Your task to perform on an android device: Open ESPN.com Image 0: 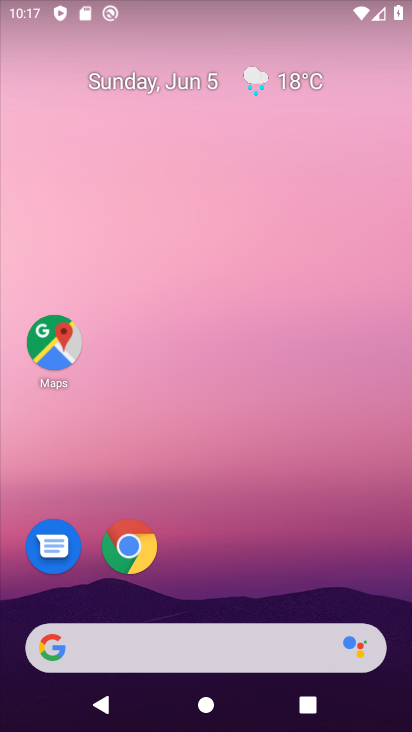
Step 0: click (138, 565)
Your task to perform on an android device: Open ESPN.com Image 1: 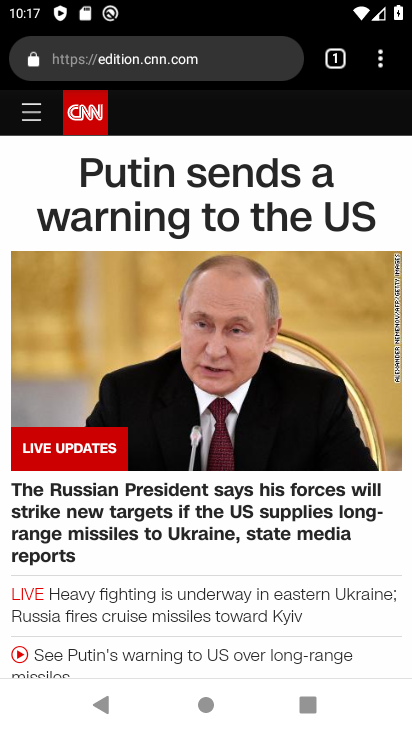
Step 1: click (335, 61)
Your task to perform on an android device: Open ESPN.com Image 2: 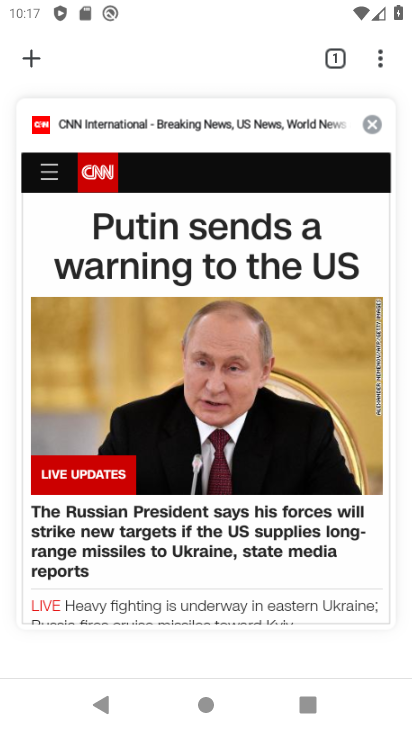
Step 2: click (376, 130)
Your task to perform on an android device: Open ESPN.com Image 3: 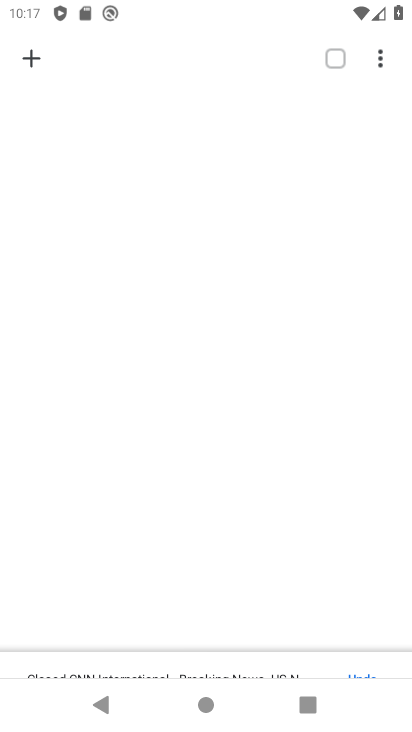
Step 3: click (35, 59)
Your task to perform on an android device: Open ESPN.com Image 4: 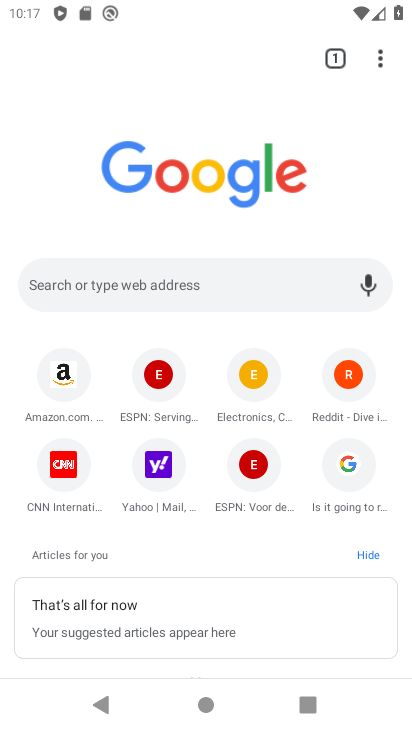
Step 4: click (162, 389)
Your task to perform on an android device: Open ESPN.com Image 5: 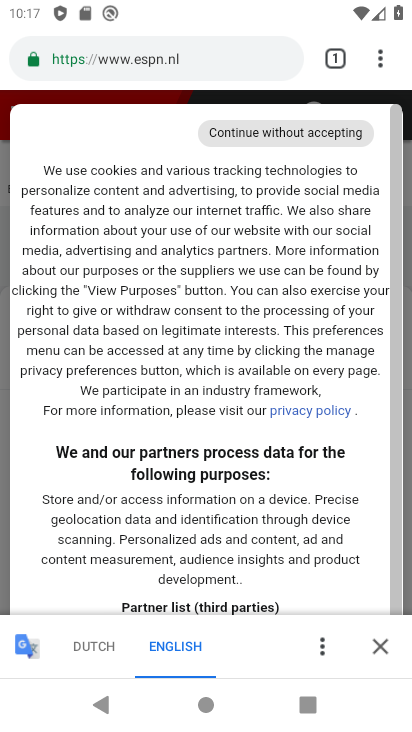
Step 5: drag from (393, 450) to (395, 590)
Your task to perform on an android device: Open ESPN.com Image 6: 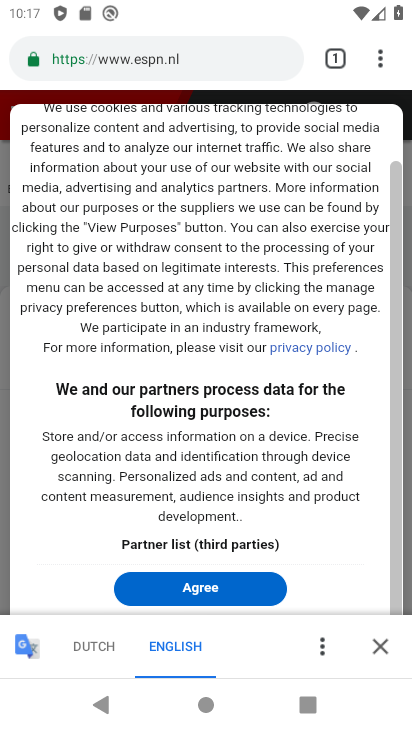
Step 6: drag from (307, 539) to (325, 227)
Your task to perform on an android device: Open ESPN.com Image 7: 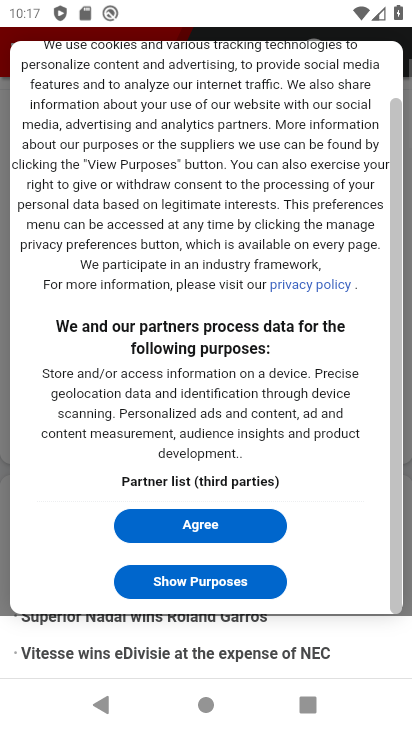
Step 7: click (262, 594)
Your task to perform on an android device: Open ESPN.com Image 8: 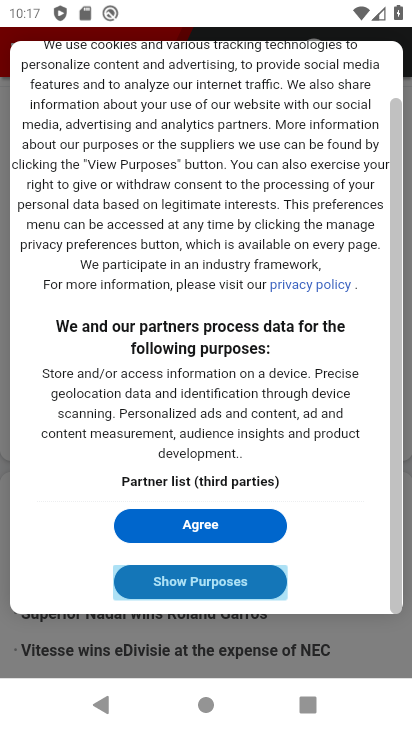
Step 8: click (248, 522)
Your task to perform on an android device: Open ESPN.com Image 9: 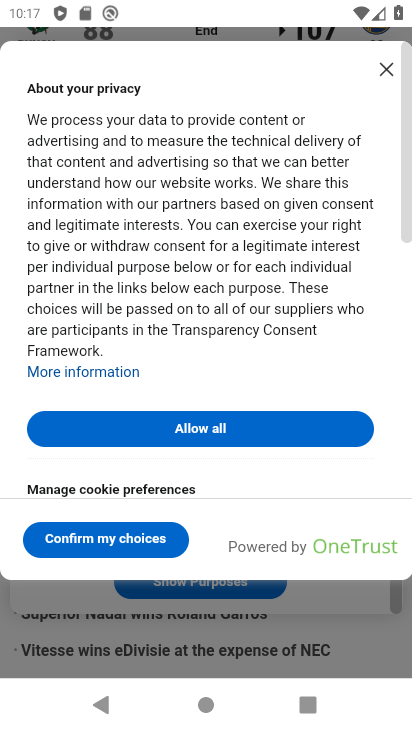
Step 9: click (387, 70)
Your task to perform on an android device: Open ESPN.com Image 10: 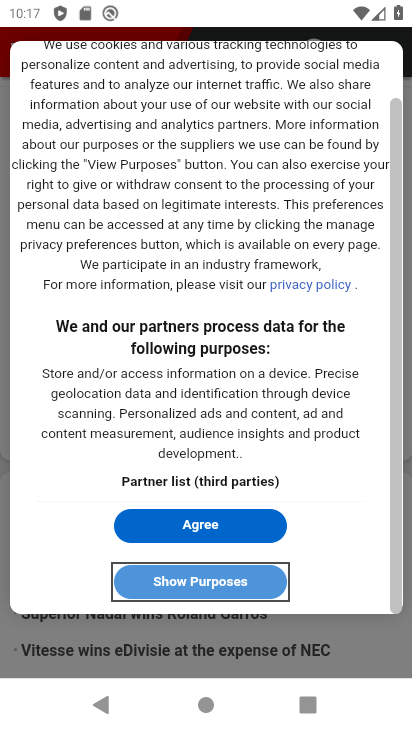
Step 10: click (211, 538)
Your task to perform on an android device: Open ESPN.com Image 11: 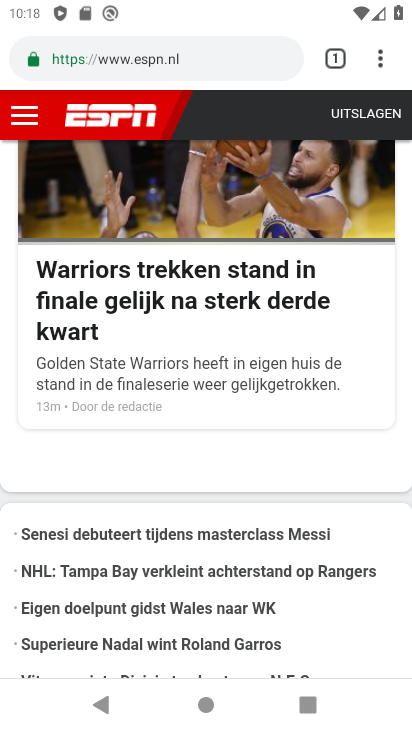
Step 11: task complete